Your task to perform on an android device: create a new album in the google photos Image 0: 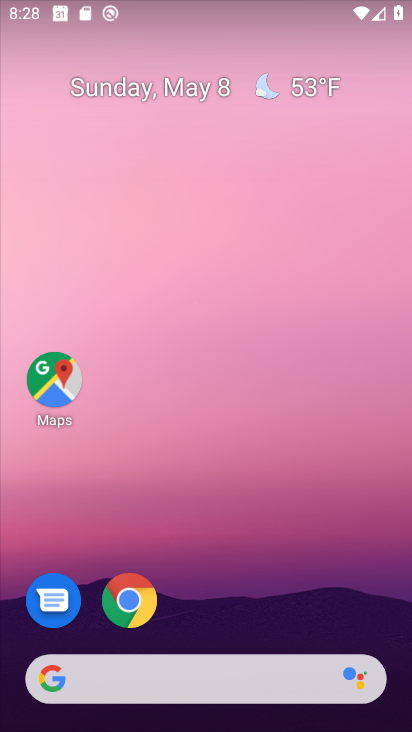
Step 0: drag from (254, 636) to (58, 36)
Your task to perform on an android device: create a new album in the google photos Image 1: 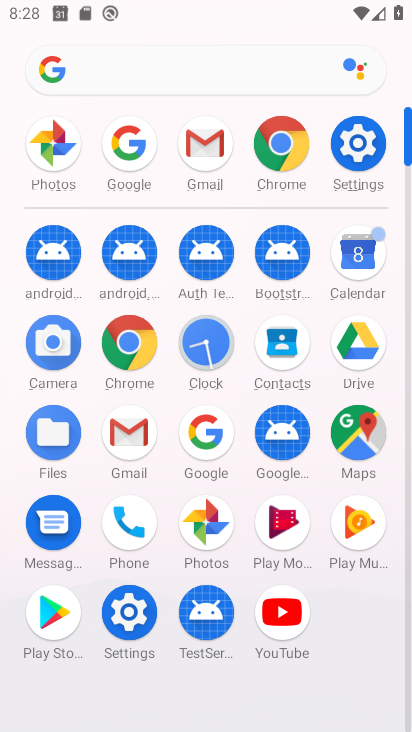
Step 1: click (205, 540)
Your task to perform on an android device: create a new album in the google photos Image 2: 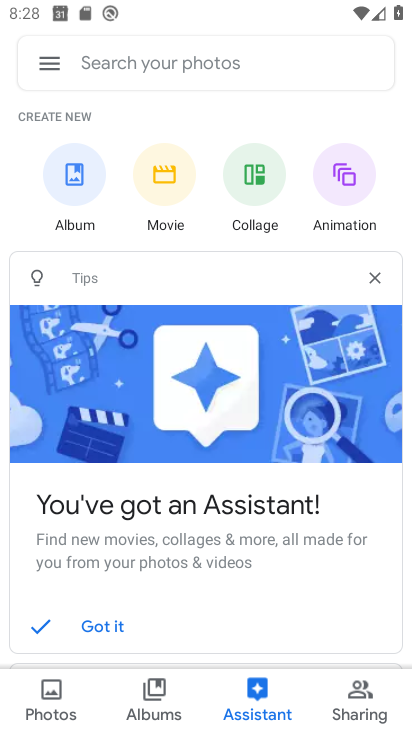
Step 2: click (163, 708)
Your task to perform on an android device: create a new album in the google photos Image 3: 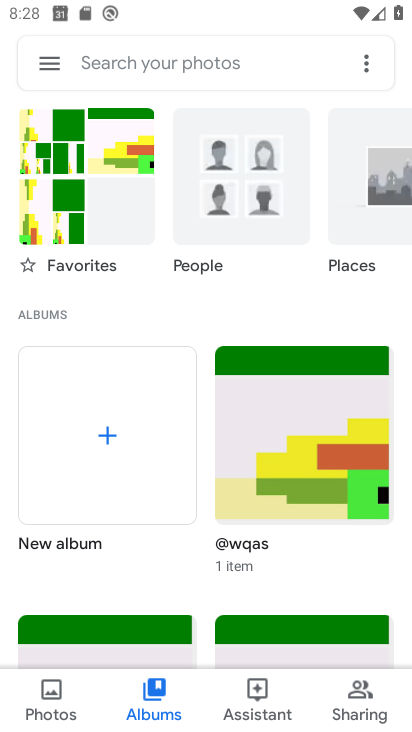
Step 3: click (117, 467)
Your task to perform on an android device: create a new album in the google photos Image 4: 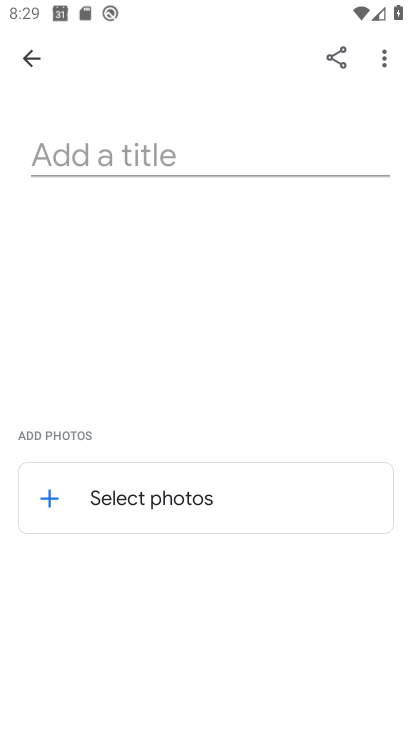
Step 4: click (168, 152)
Your task to perform on an android device: create a new album in the google photos Image 5: 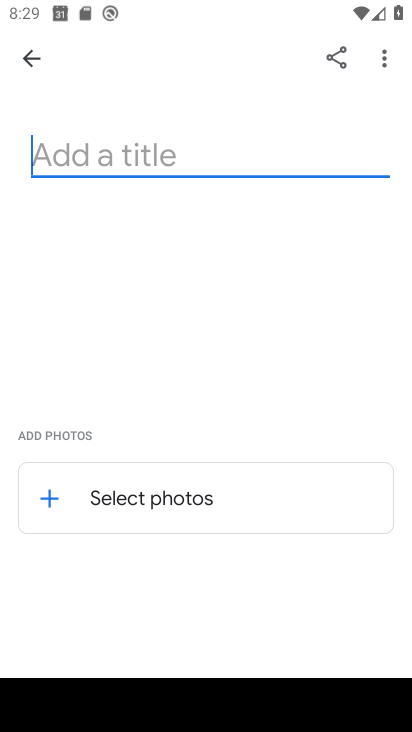
Step 5: type "jgkjjhkjjho"
Your task to perform on an android device: create a new album in the google photos Image 6: 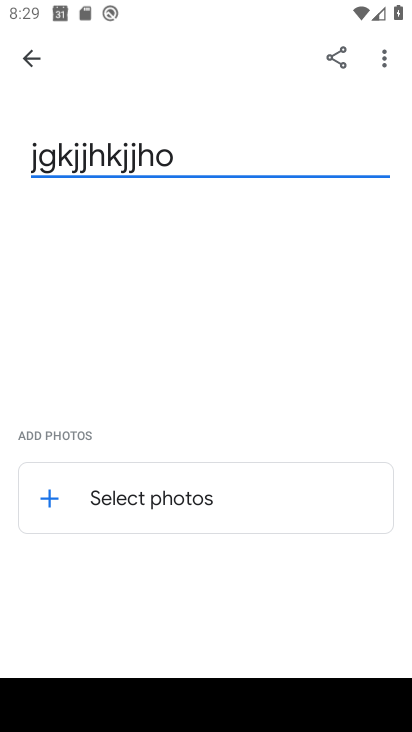
Step 6: click (182, 533)
Your task to perform on an android device: create a new album in the google photos Image 7: 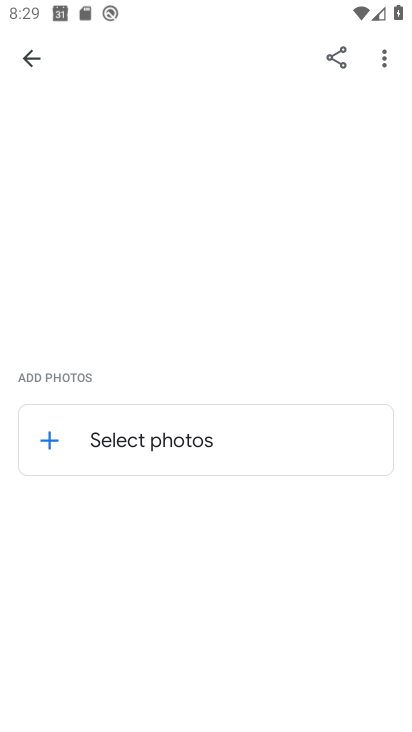
Step 7: click (112, 422)
Your task to perform on an android device: create a new album in the google photos Image 8: 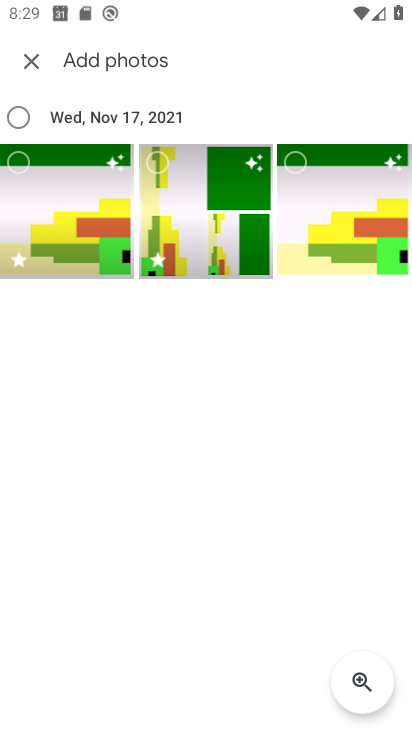
Step 8: click (25, 159)
Your task to perform on an android device: create a new album in the google photos Image 9: 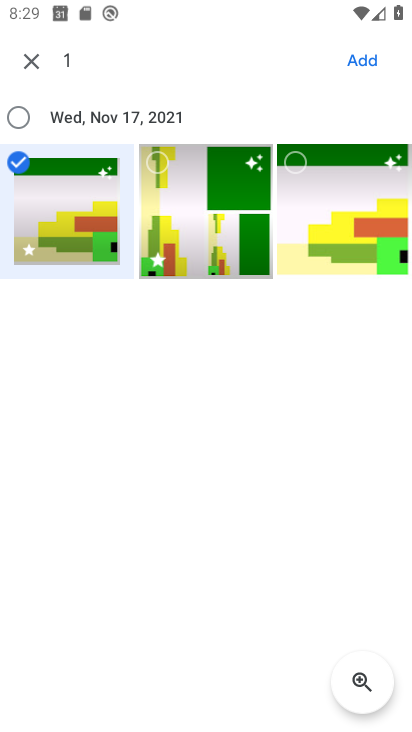
Step 9: click (364, 59)
Your task to perform on an android device: create a new album in the google photos Image 10: 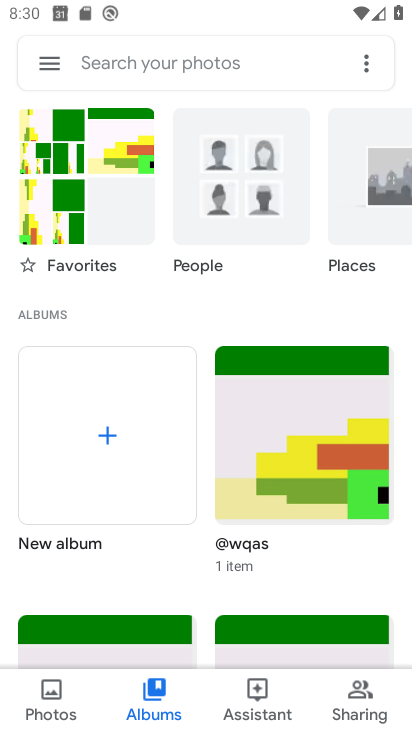
Step 10: task complete